Your task to perform on an android device: read, delete, or share a saved page in the chrome app Image 0: 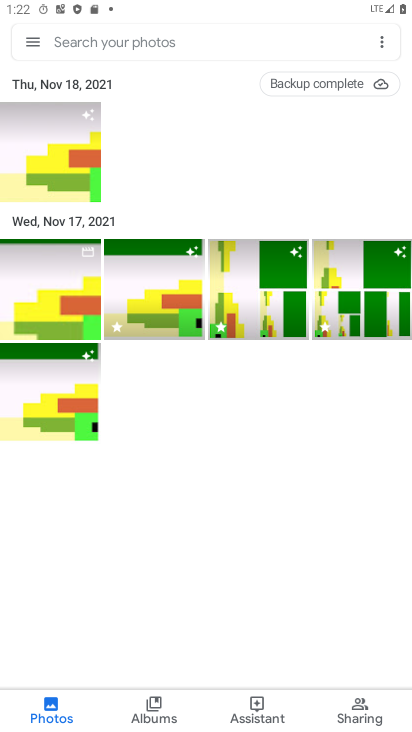
Step 0: press home button
Your task to perform on an android device: read, delete, or share a saved page in the chrome app Image 1: 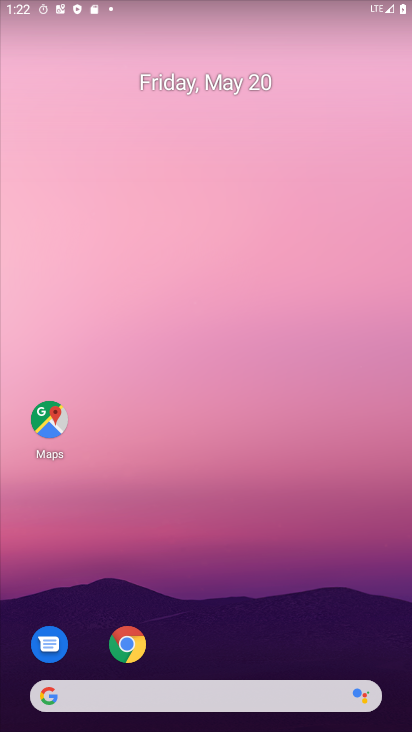
Step 1: drag from (276, 538) to (308, 92)
Your task to perform on an android device: read, delete, or share a saved page in the chrome app Image 2: 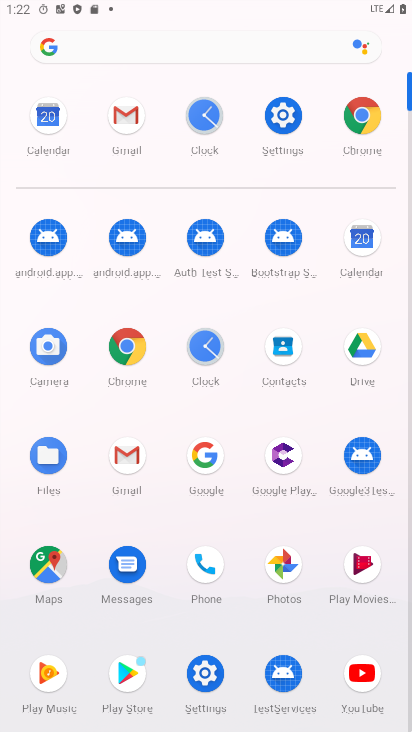
Step 2: click (363, 133)
Your task to perform on an android device: read, delete, or share a saved page in the chrome app Image 3: 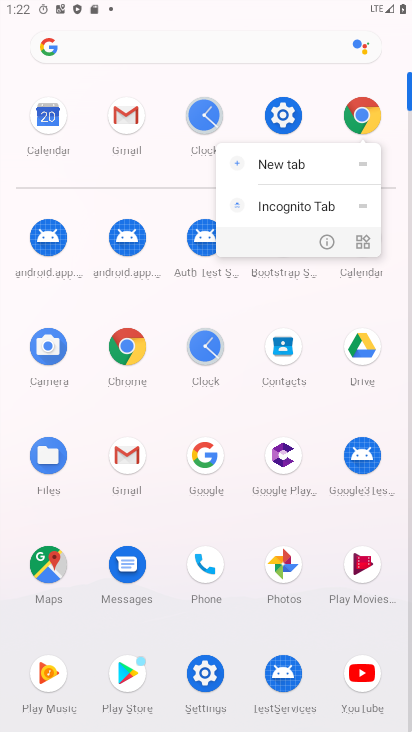
Step 3: click (363, 133)
Your task to perform on an android device: read, delete, or share a saved page in the chrome app Image 4: 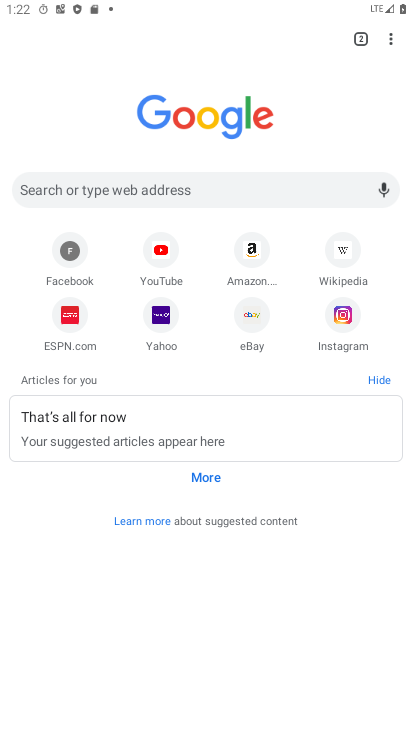
Step 4: task complete